Your task to perform on an android device: Is it going to rain this weekend? Image 0: 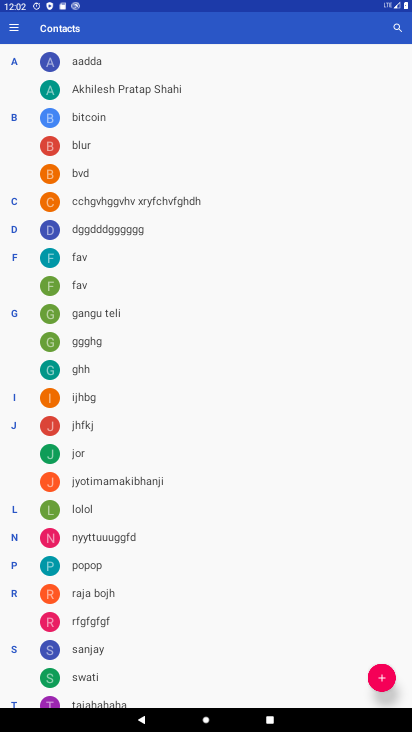
Step 0: press home button
Your task to perform on an android device: Is it going to rain this weekend? Image 1: 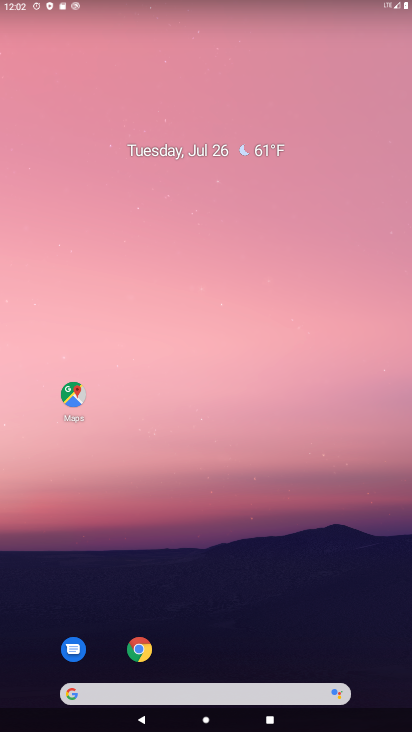
Step 1: drag from (222, 679) to (213, 5)
Your task to perform on an android device: Is it going to rain this weekend? Image 2: 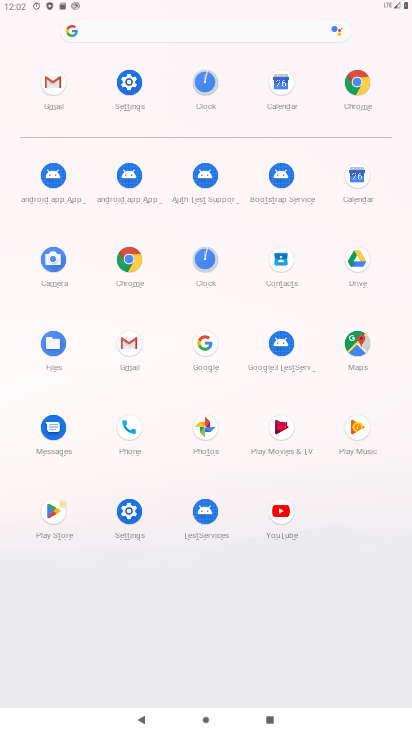
Step 2: click (205, 349)
Your task to perform on an android device: Is it going to rain this weekend? Image 3: 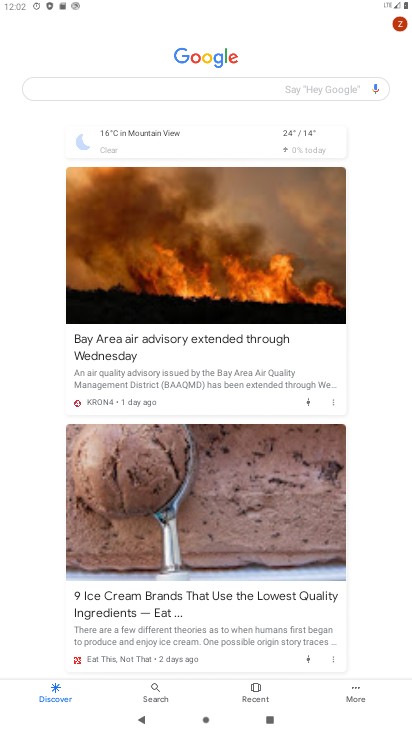
Step 3: click (171, 91)
Your task to perform on an android device: Is it going to rain this weekend? Image 4: 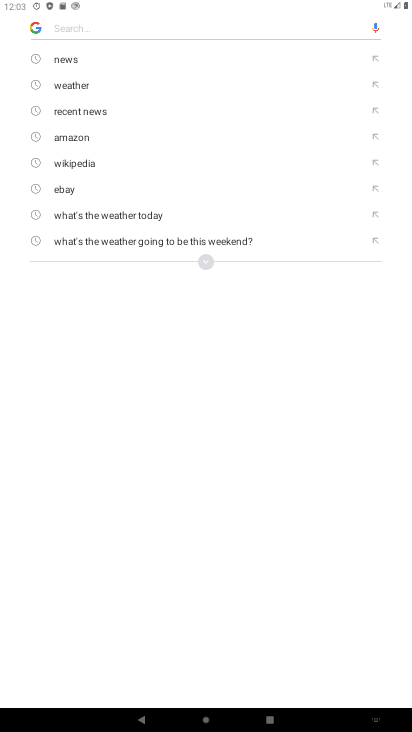
Step 4: click (87, 77)
Your task to perform on an android device: Is it going to rain this weekend? Image 5: 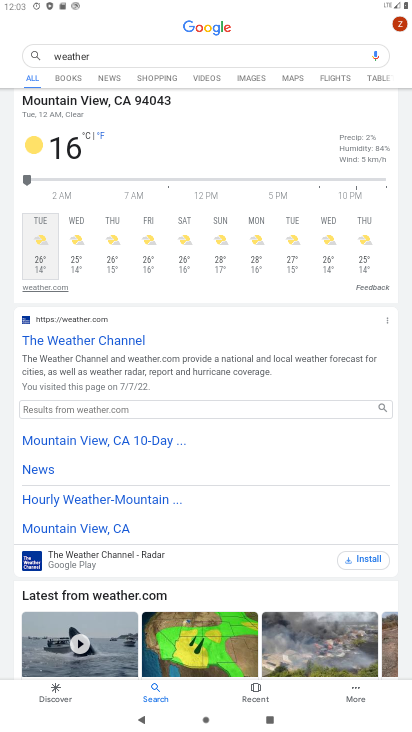
Step 5: task complete